Your task to perform on an android device: Show me popular games on the Play Store Image 0: 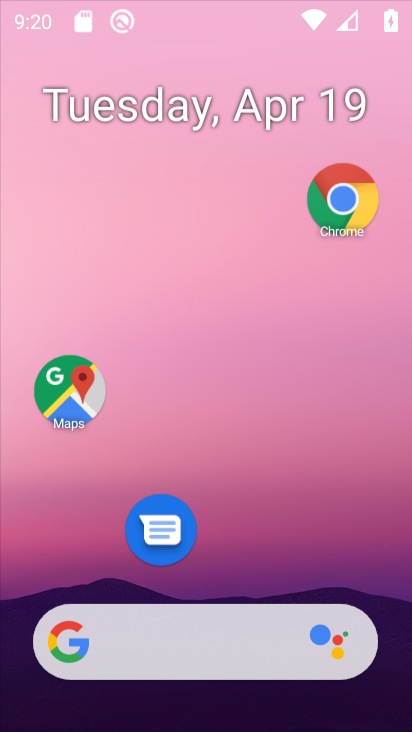
Step 0: drag from (216, 590) to (210, 5)
Your task to perform on an android device: Show me popular games on the Play Store Image 1: 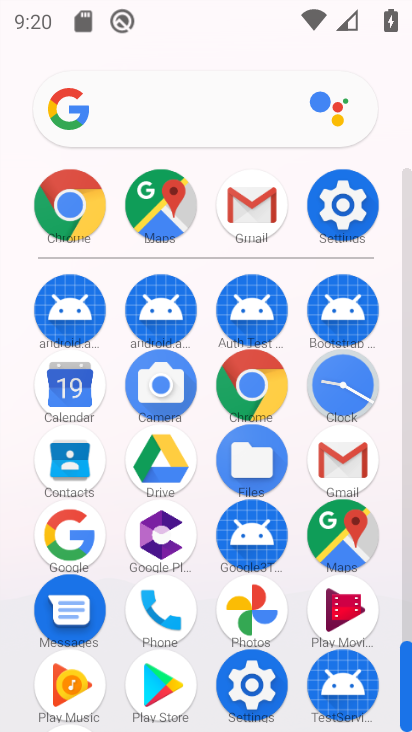
Step 1: click (151, 683)
Your task to perform on an android device: Show me popular games on the Play Store Image 2: 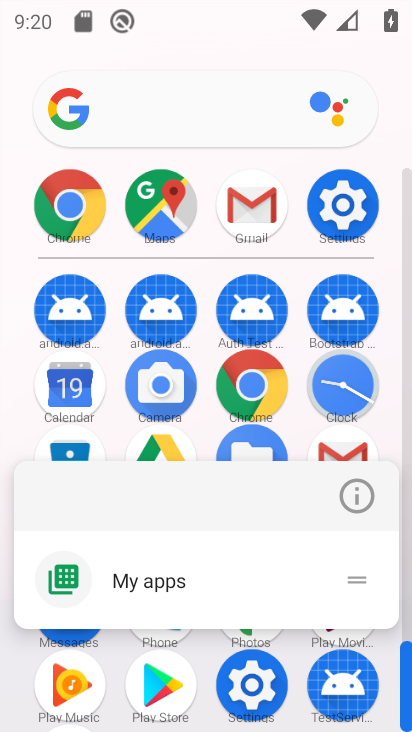
Step 2: click (349, 496)
Your task to perform on an android device: Show me popular games on the Play Store Image 3: 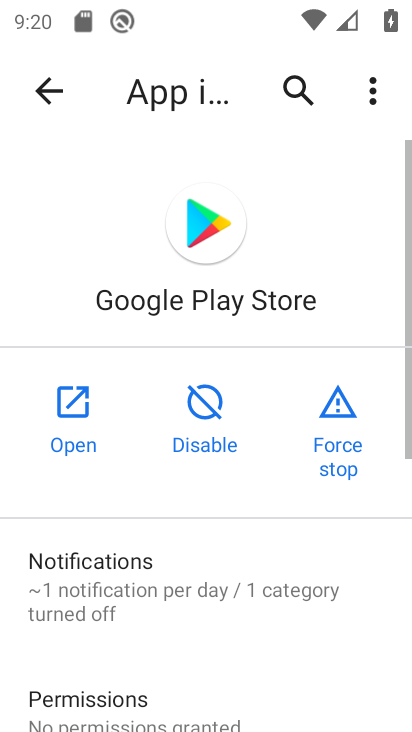
Step 3: click (66, 406)
Your task to perform on an android device: Show me popular games on the Play Store Image 4: 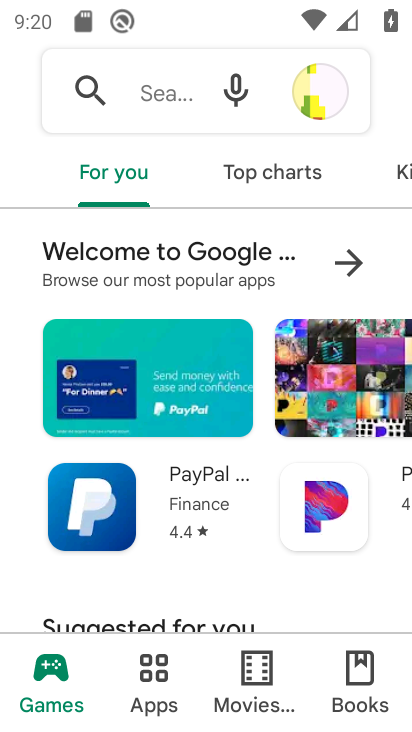
Step 4: click (321, 108)
Your task to perform on an android device: Show me popular games on the Play Store Image 5: 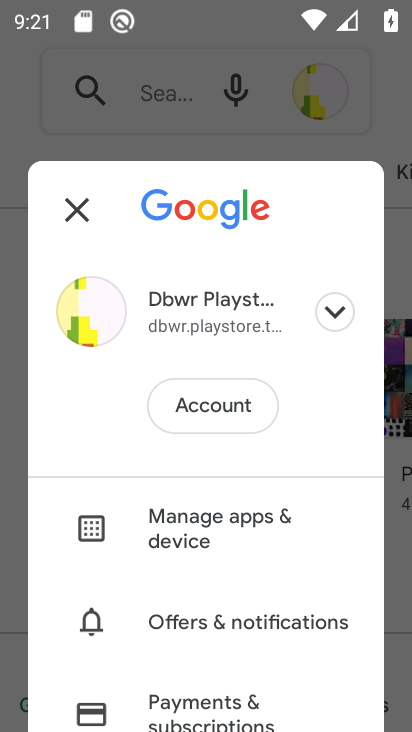
Step 5: click (77, 213)
Your task to perform on an android device: Show me popular games on the Play Store Image 6: 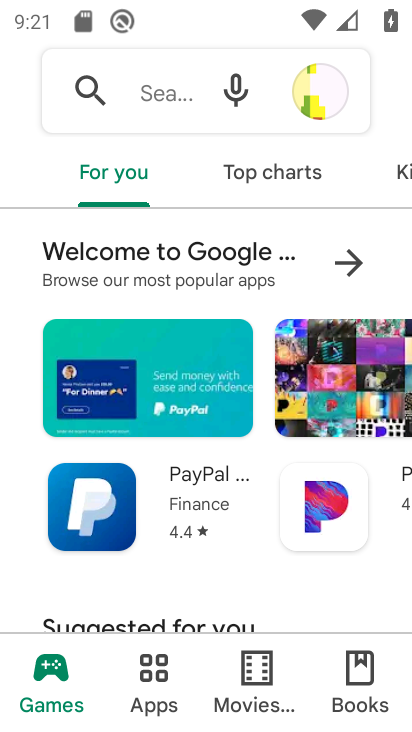
Step 6: click (115, 99)
Your task to perform on an android device: Show me popular games on the Play Store Image 7: 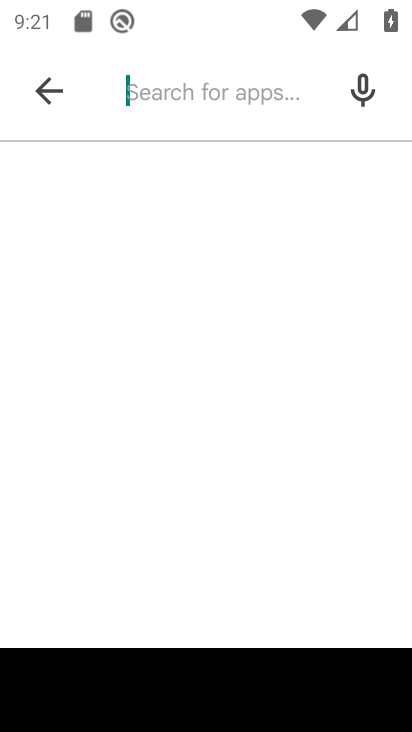
Step 7: type "popular games"
Your task to perform on an android device: Show me popular games on the Play Store Image 8: 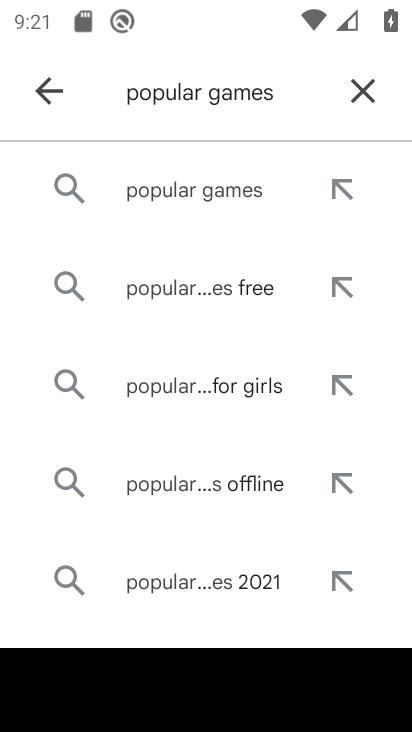
Step 8: click (172, 194)
Your task to perform on an android device: Show me popular games on the Play Store Image 9: 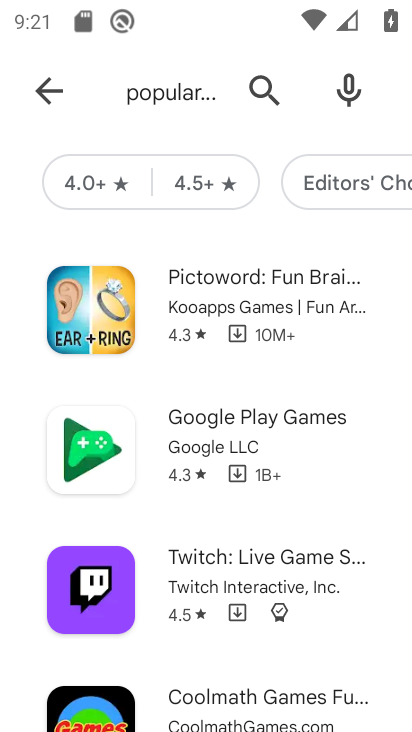
Step 9: task complete